Your task to perform on an android device: Open Google Chrome Image 0: 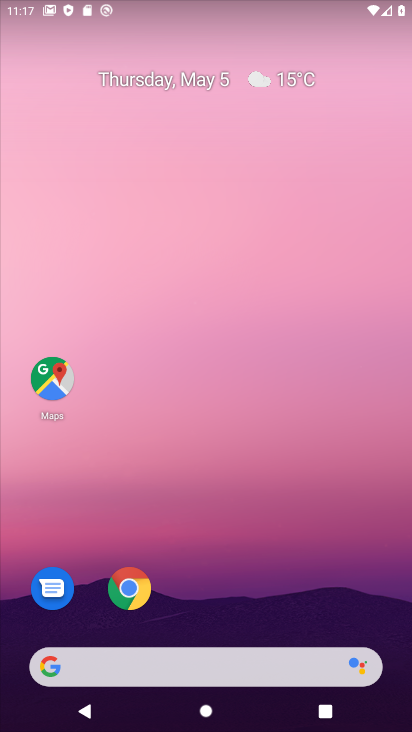
Step 0: drag from (266, 569) to (312, 3)
Your task to perform on an android device: Open Google Chrome Image 1: 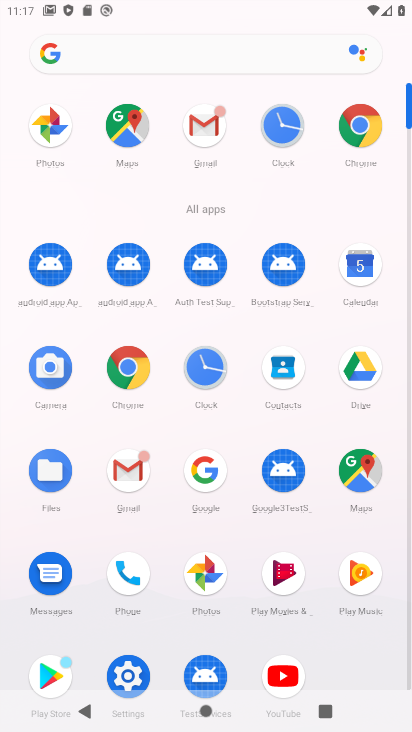
Step 1: click (366, 136)
Your task to perform on an android device: Open Google Chrome Image 2: 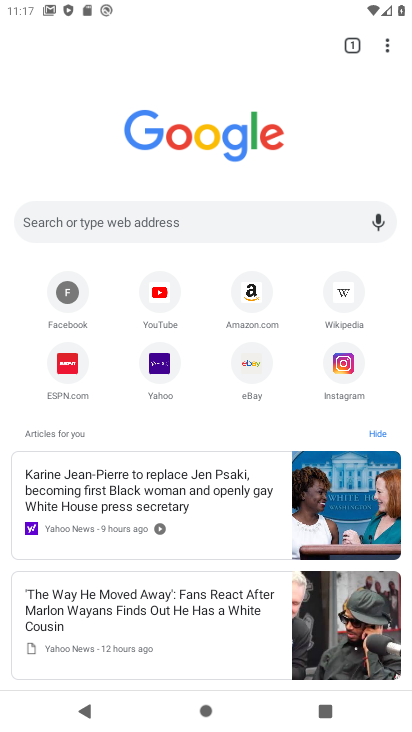
Step 2: task complete